Your task to perform on an android device: Add "logitech g933" to the cart on bestbuy, then select checkout. Image 0: 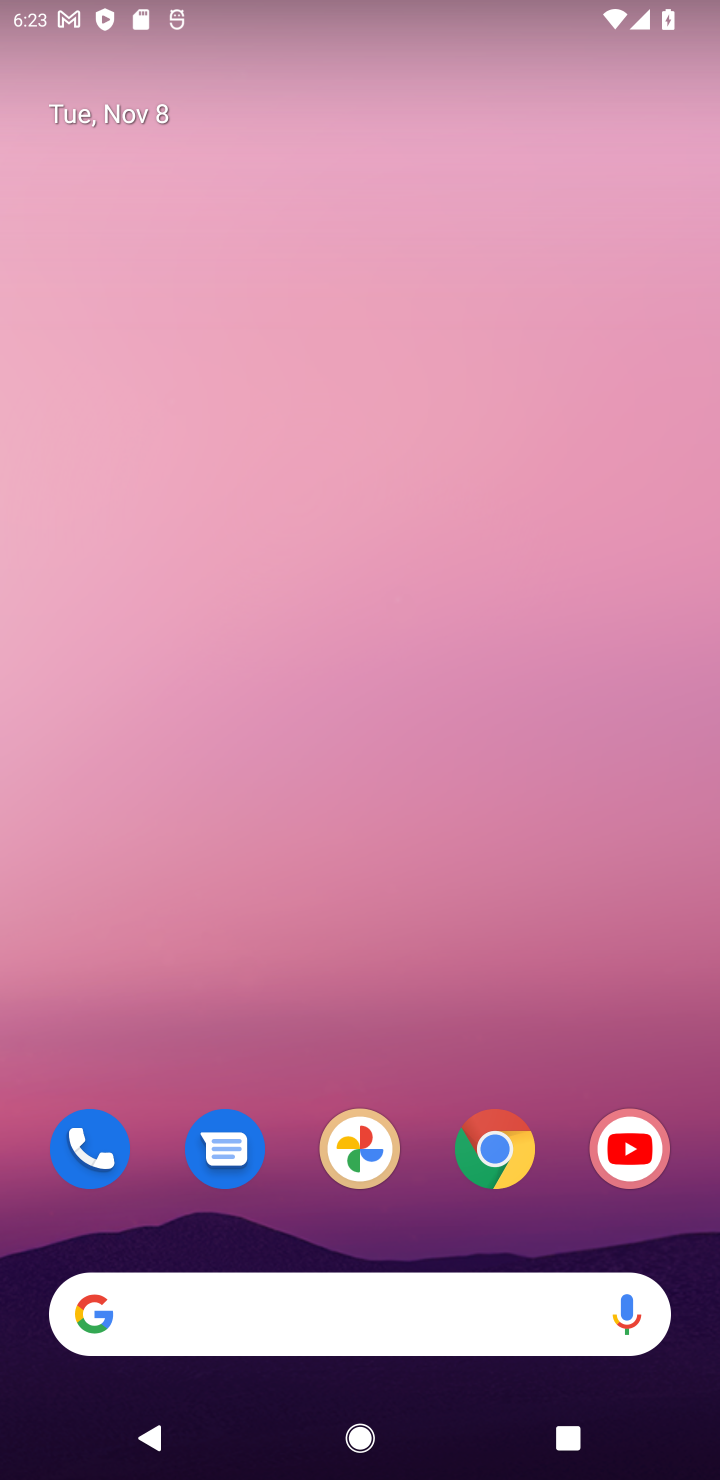
Step 0: click (497, 1163)
Your task to perform on an android device: Add "logitech g933" to the cart on bestbuy, then select checkout. Image 1: 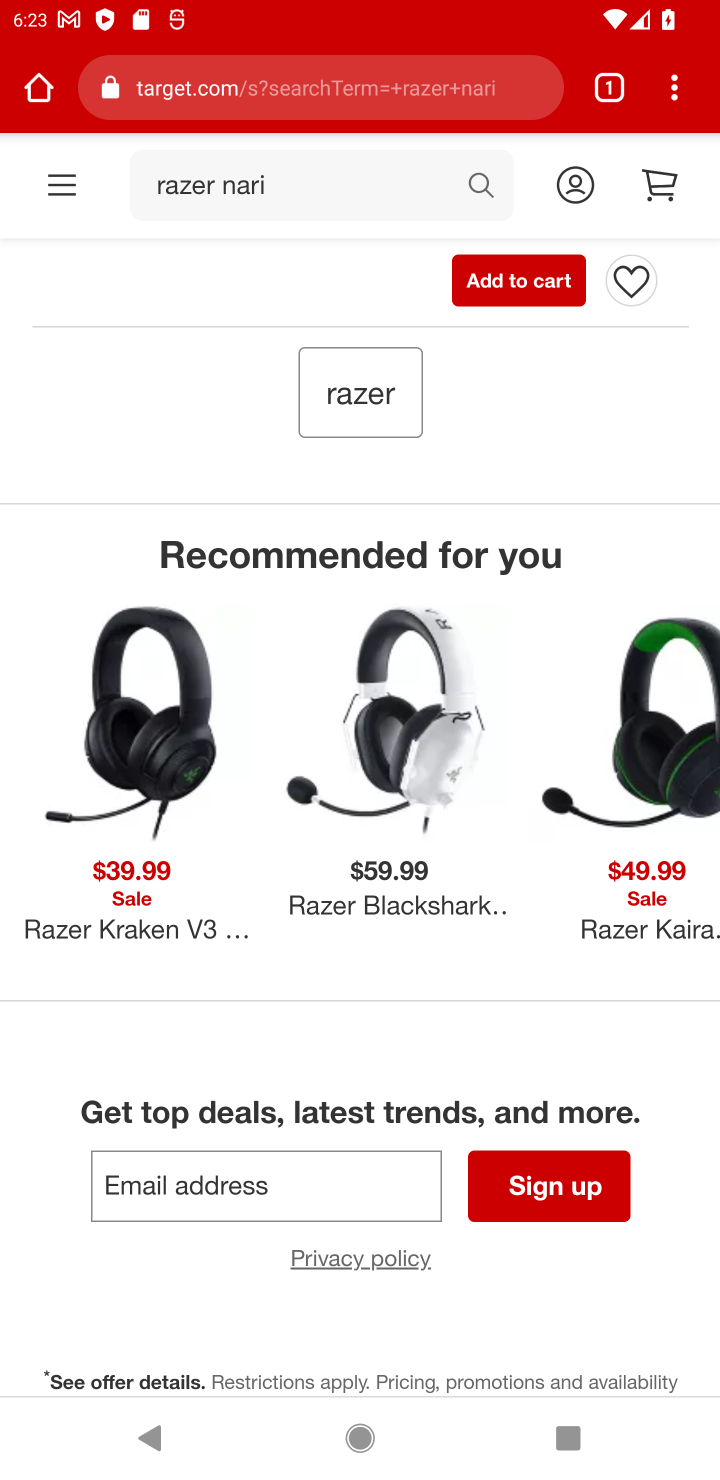
Step 1: click (460, 81)
Your task to perform on an android device: Add "logitech g933" to the cart on bestbuy, then select checkout. Image 2: 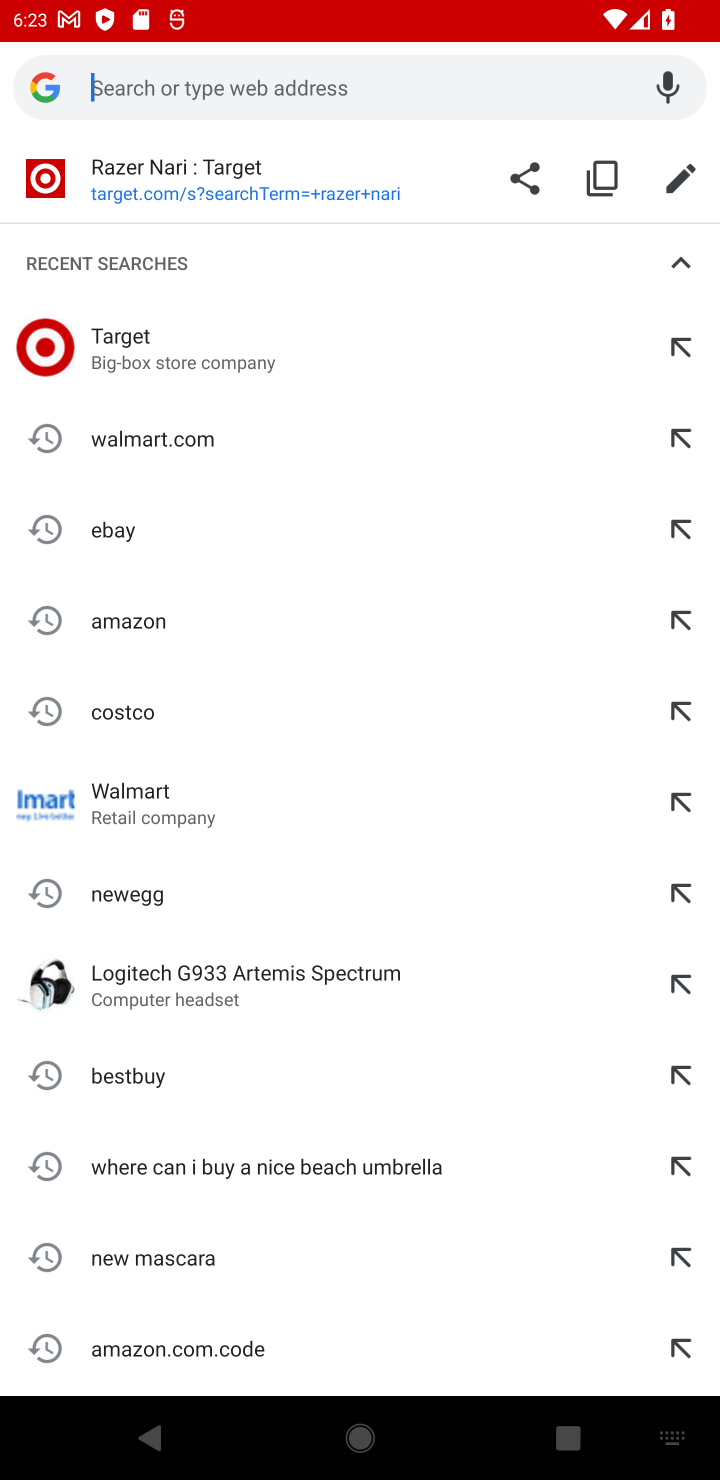
Step 2: press enter
Your task to perform on an android device: Add "logitech g933" to the cart on bestbuy, then select checkout. Image 3: 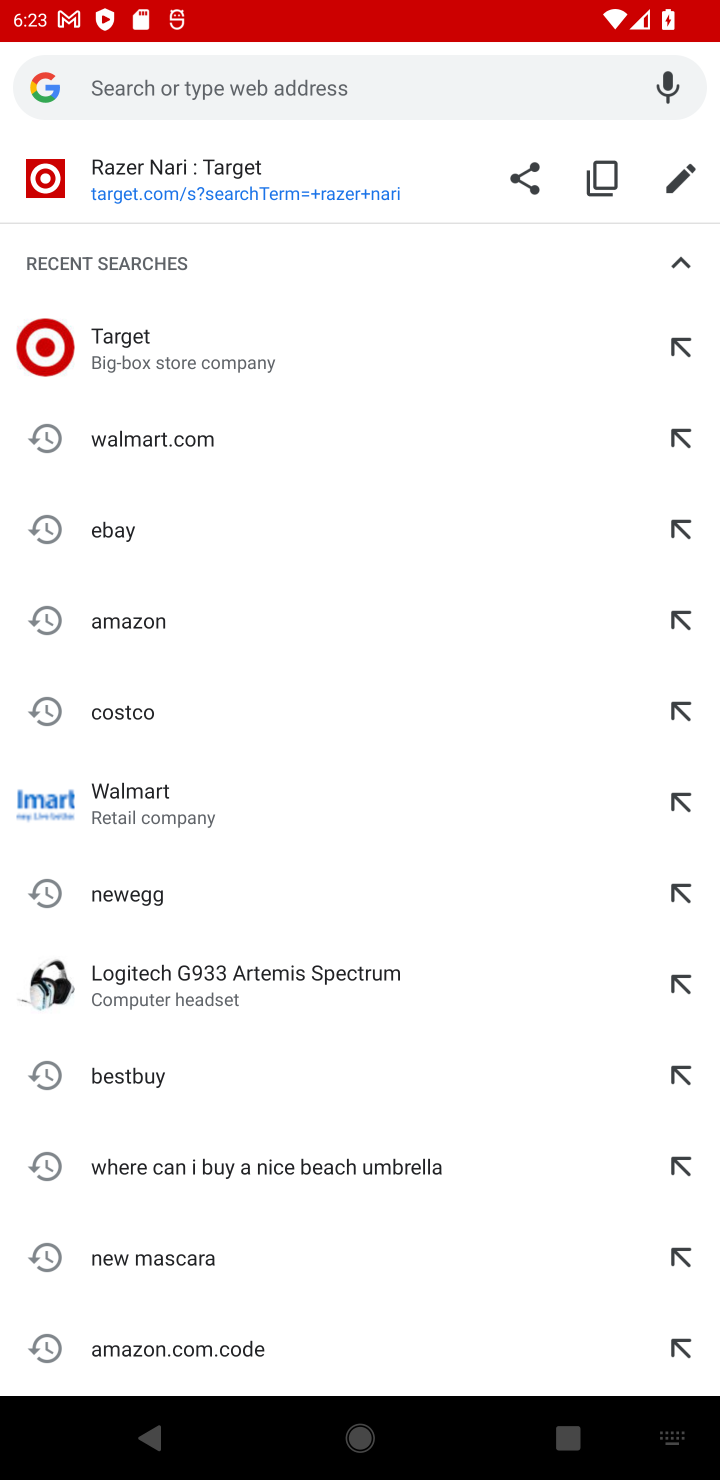
Step 3: type "bestbuy"
Your task to perform on an android device: Add "logitech g933" to the cart on bestbuy, then select checkout. Image 4: 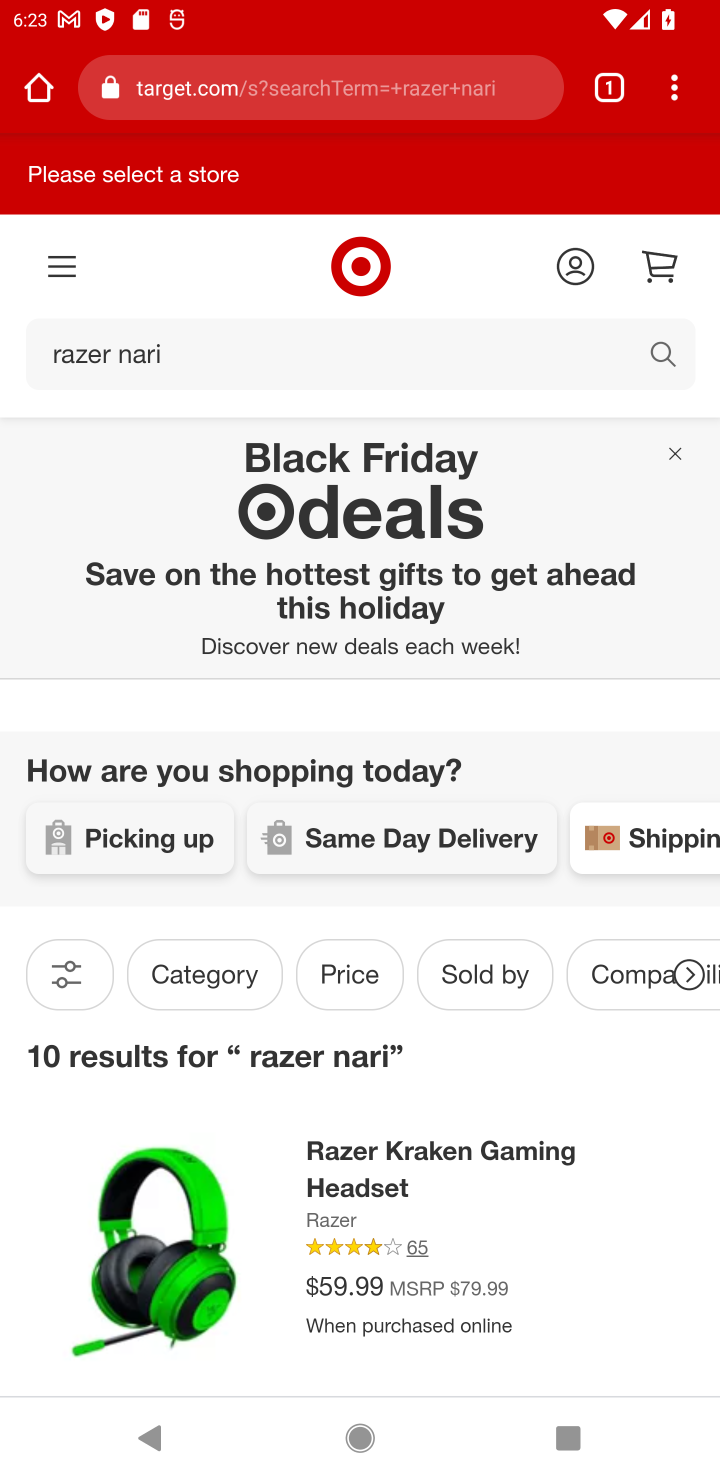
Step 4: click (406, 86)
Your task to perform on an android device: Add "logitech g933" to the cart on bestbuy, then select checkout. Image 5: 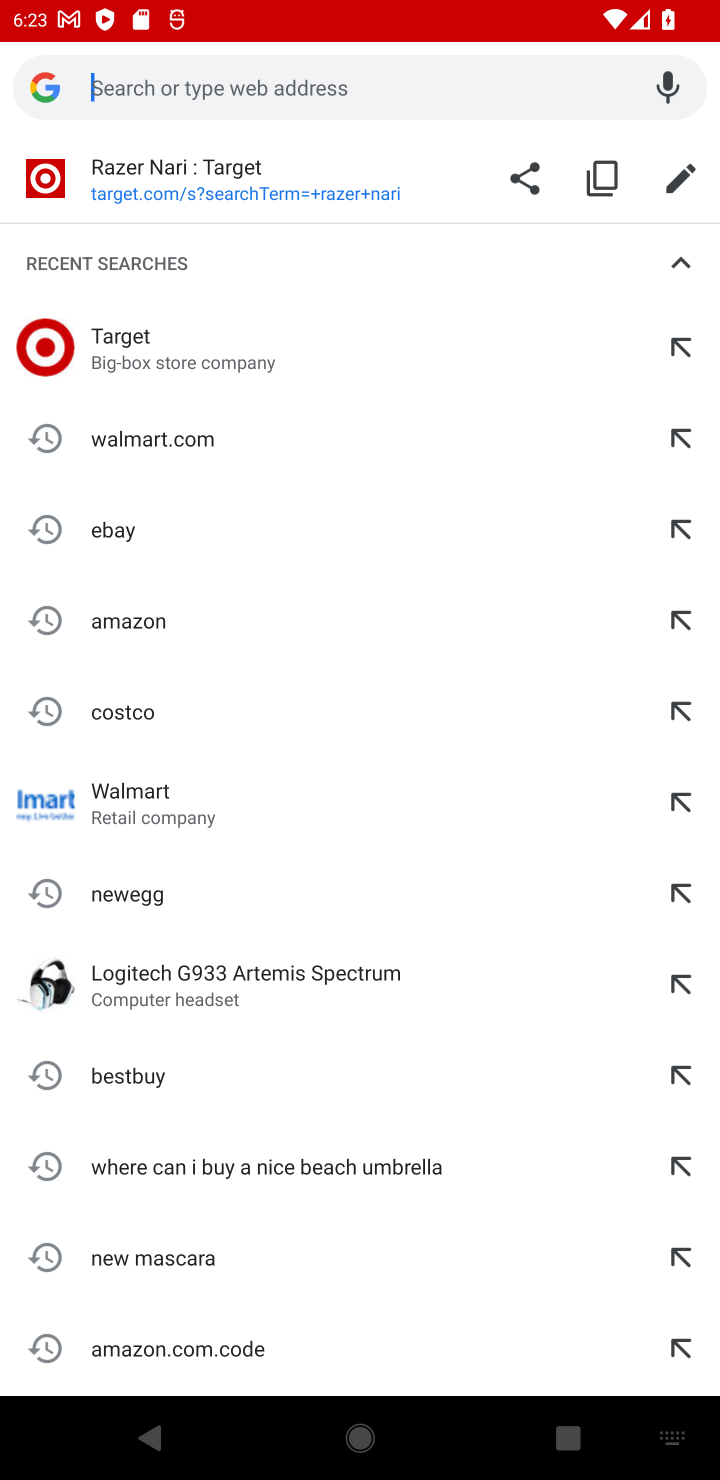
Step 5: press enter
Your task to perform on an android device: Add "logitech g933" to the cart on bestbuy, then select checkout. Image 6: 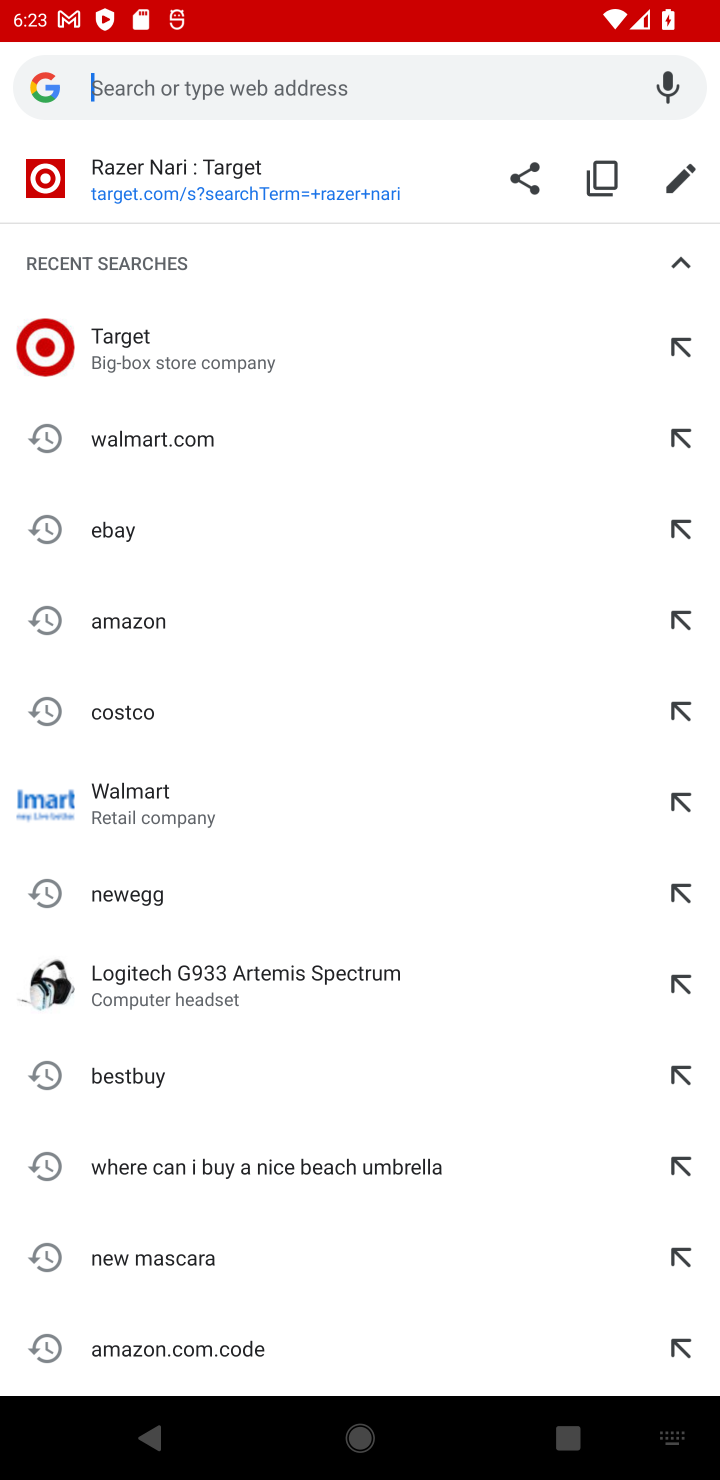
Step 6: type "bestbuy"
Your task to perform on an android device: Add "logitech g933" to the cart on bestbuy, then select checkout. Image 7: 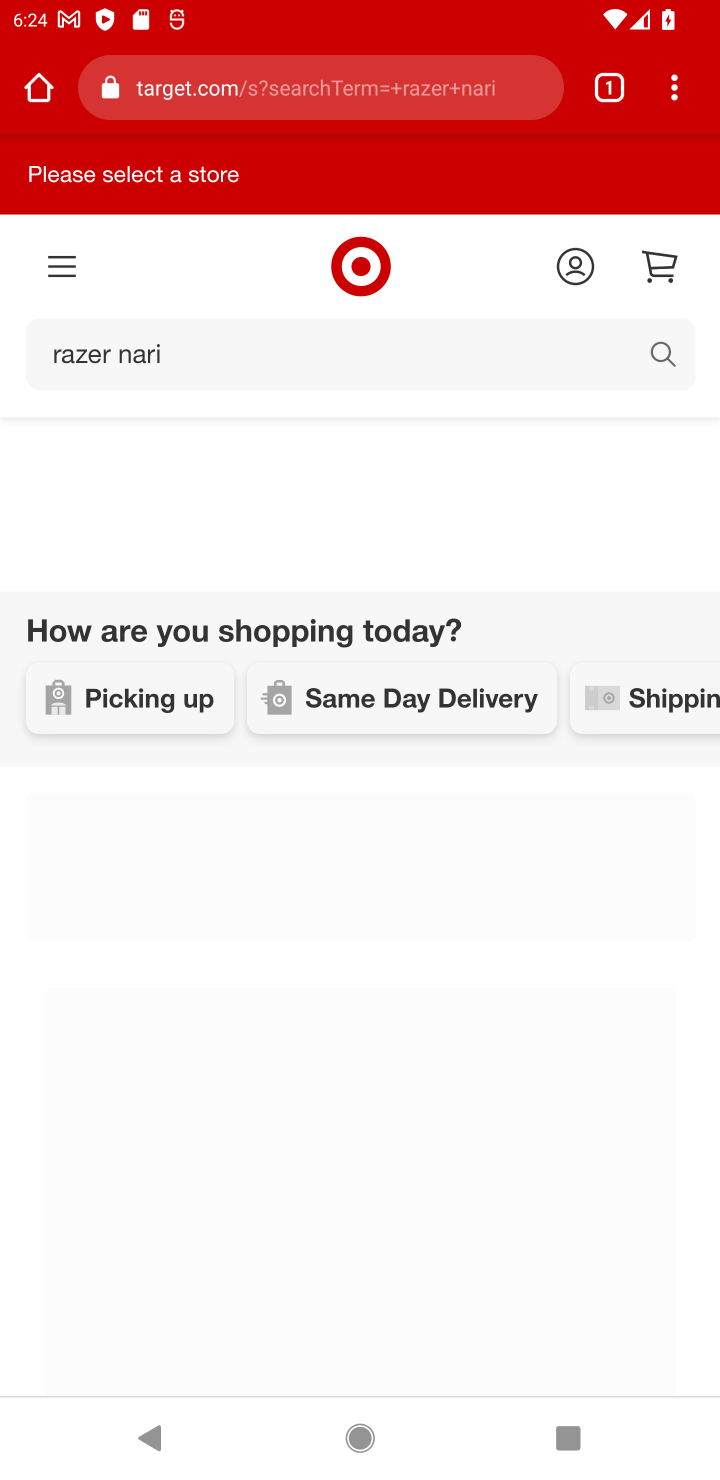
Step 7: click (42, 75)
Your task to perform on an android device: Add "logitech g933" to the cart on bestbuy, then select checkout. Image 8: 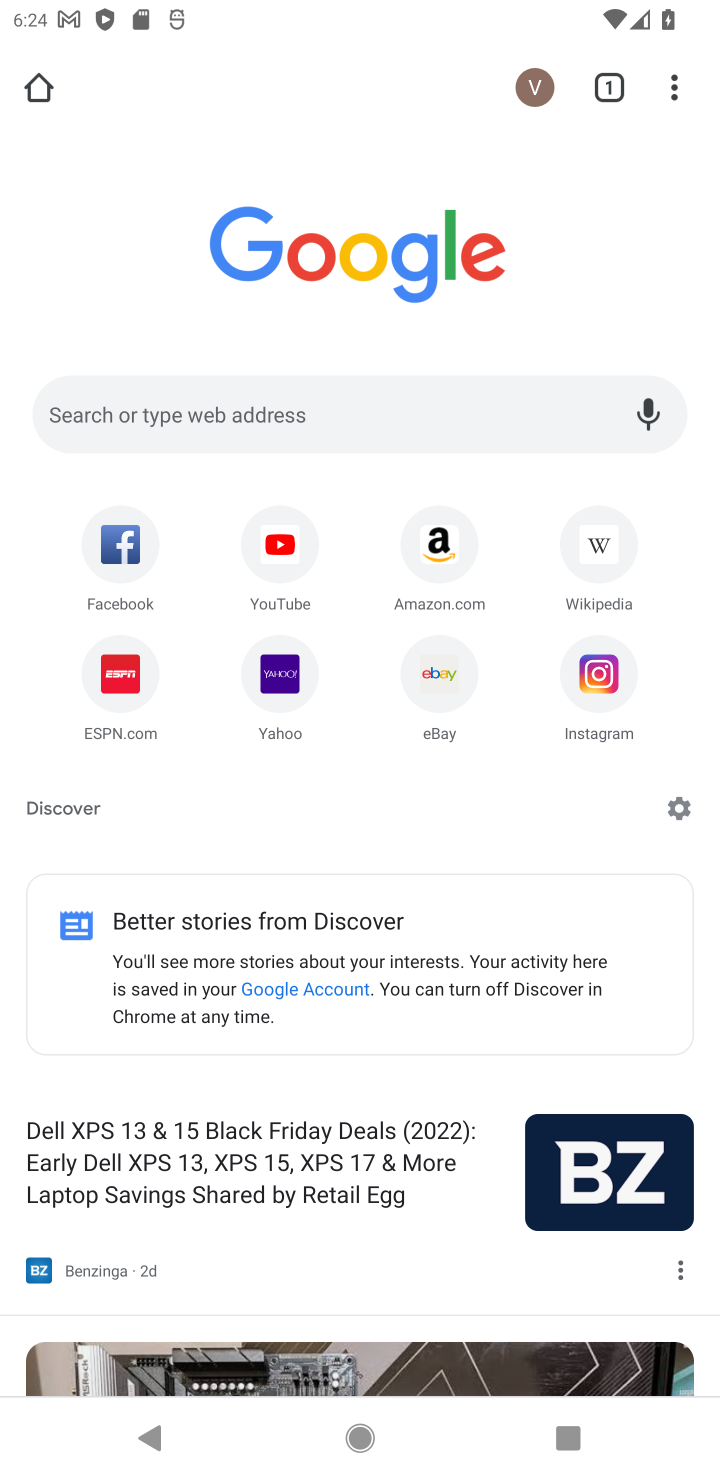
Step 8: click (333, 402)
Your task to perform on an android device: Add "logitech g933" to the cart on bestbuy, then select checkout. Image 9: 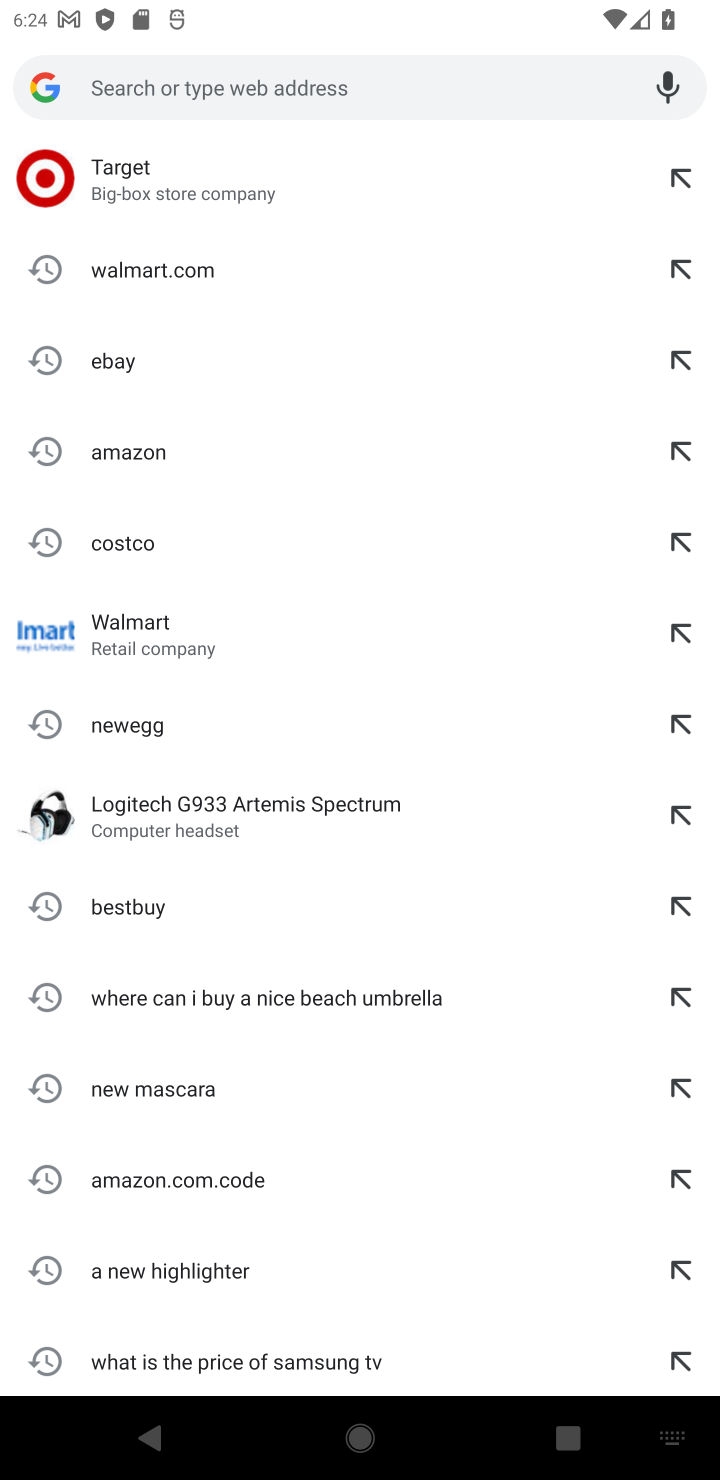
Step 9: click (121, 908)
Your task to perform on an android device: Add "logitech g933" to the cart on bestbuy, then select checkout. Image 10: 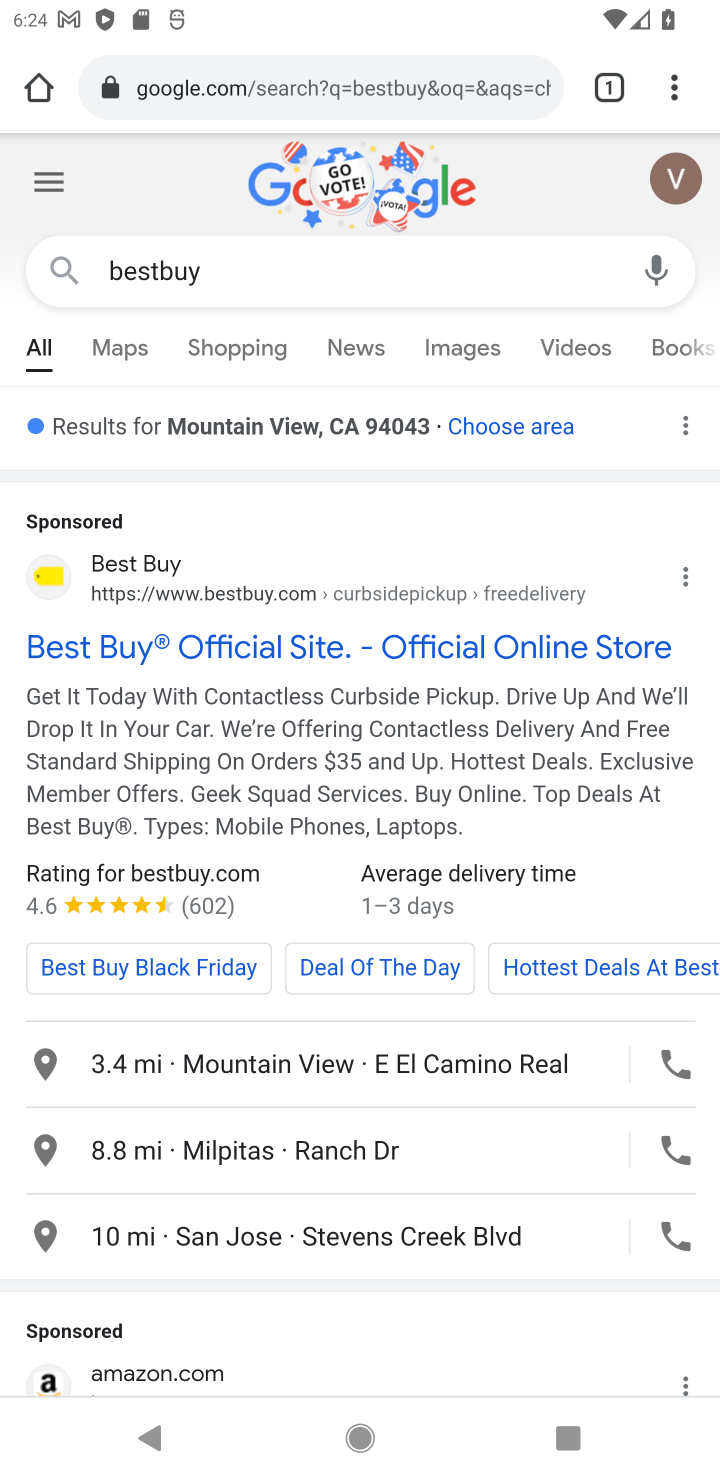
Step 10: click (160, 594)
Your task to perform on an android device: Add "logitech g933" to the cart on bestbuy, then select checkout. Image 11: 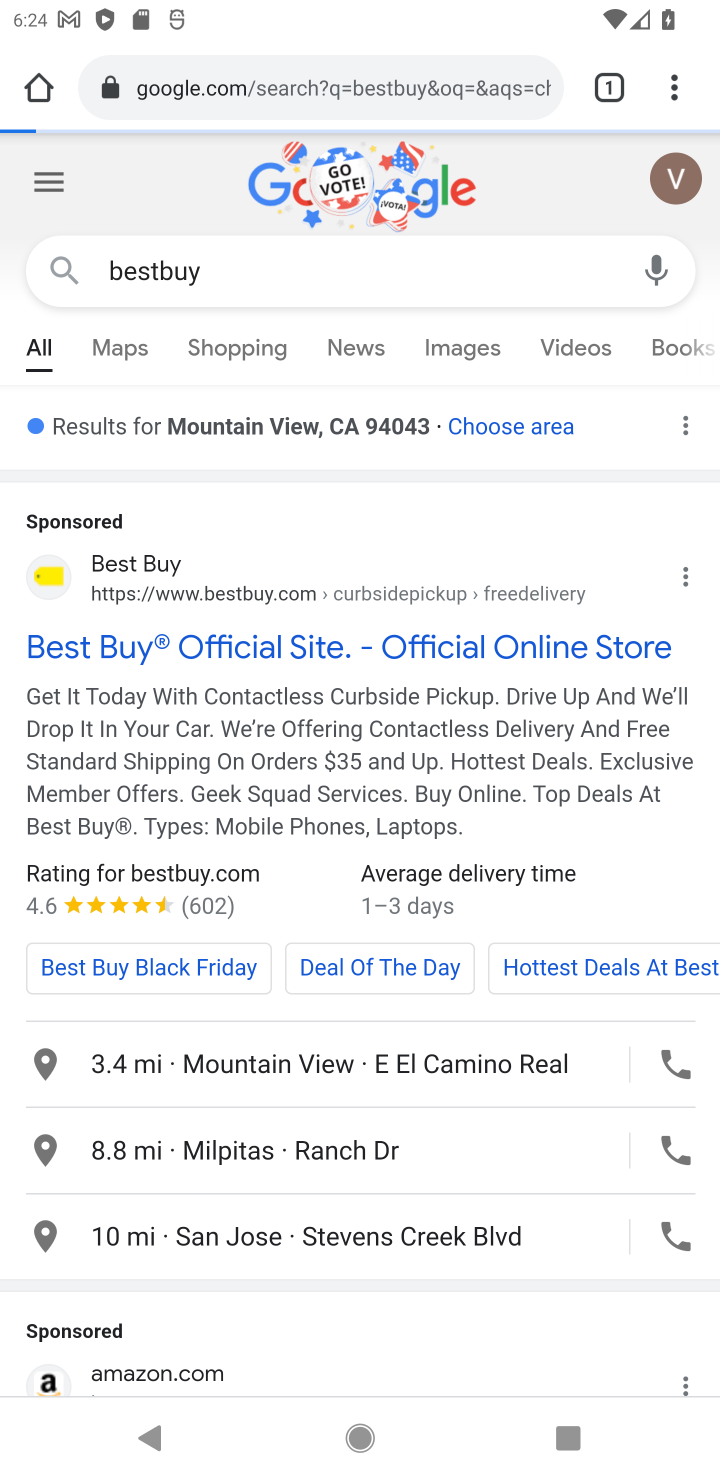
Step 11: click (160, 594)
Your task to perform on an android device: Add "logitech g933" to the cart on bestbuy, then select checkout. Image 12: 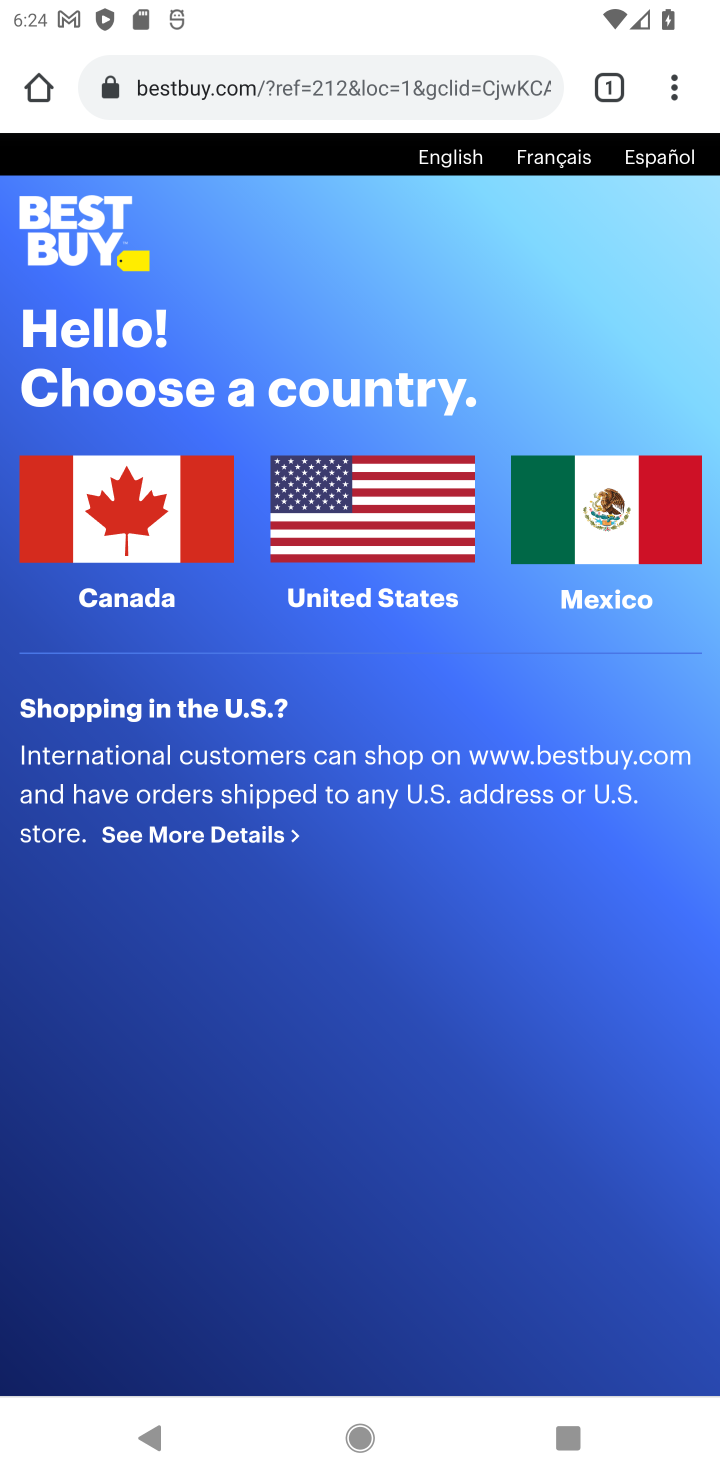
Step 12: click (462, 523)
Your task to perform on an android device: Add "logitech g933" to the cart on bestbuy, then select checkout. Image 13: 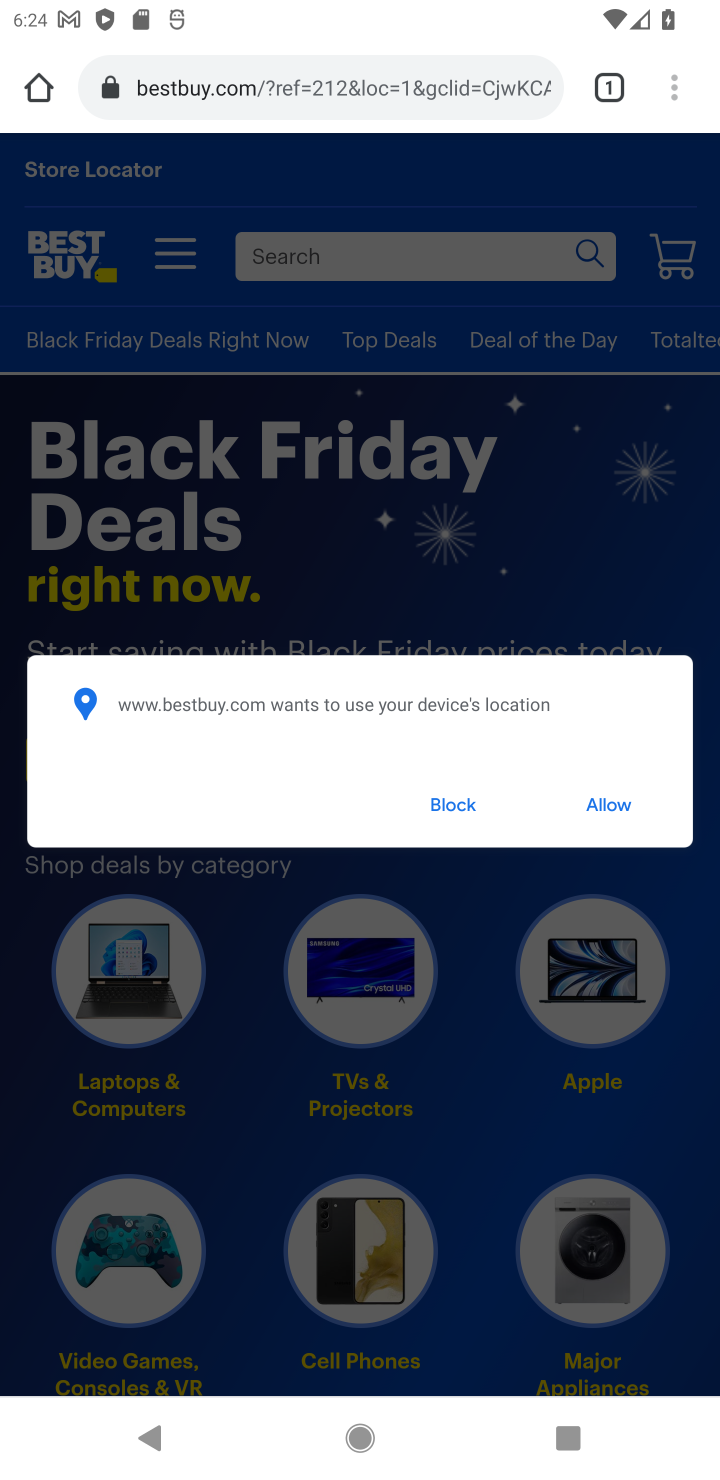
Step 13: click (456, 796)
Your task to perform on an android device: Add "logitech g933" to the cart on bestbuy, then select checkout. Image 14: 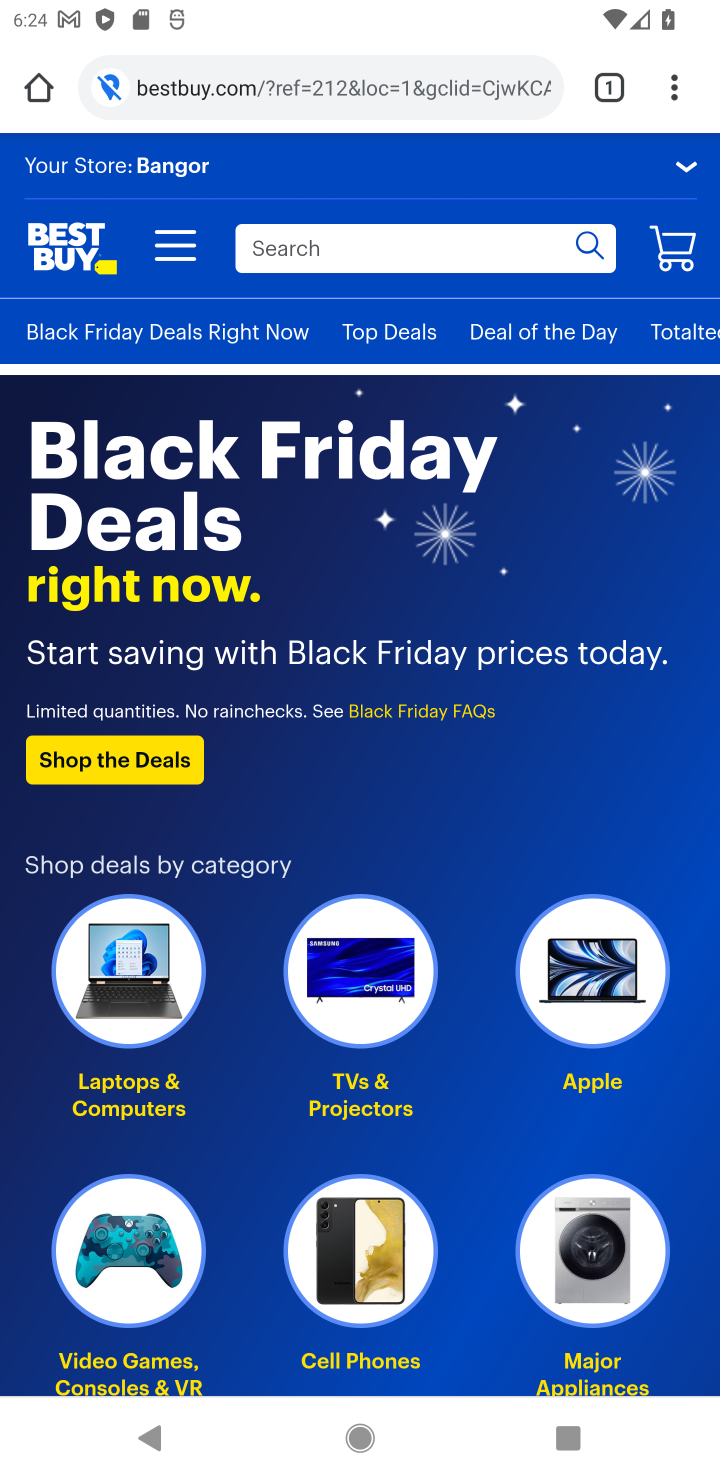
Step 14: click (488, 253)
Your task to perform on an android device: Add "logitech g933" to the cart on bestbuy, then select checkout. Image 15: 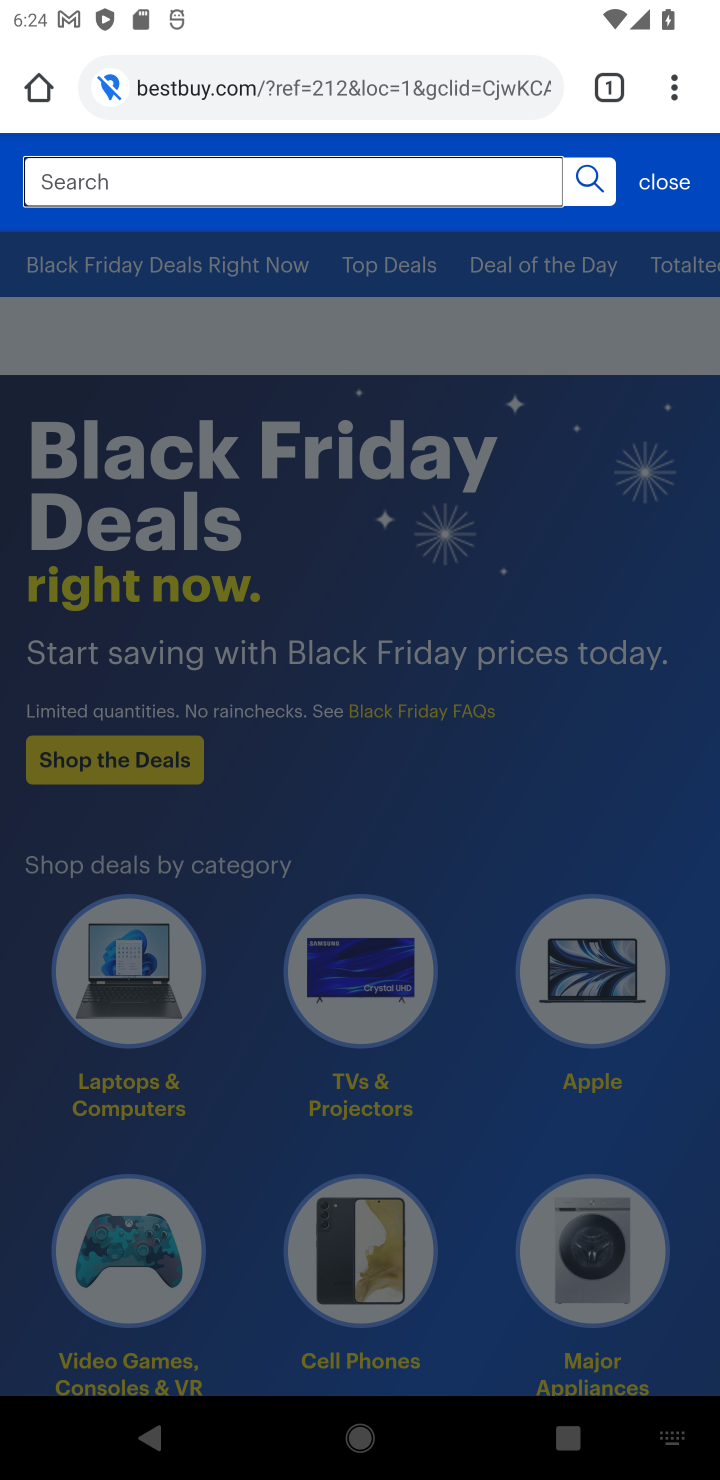
Step 15: type "logitech g933"
Your task to perform on an android device: Add "logitech g933" to the cart on bestbuy, then select checkout. Image 16: 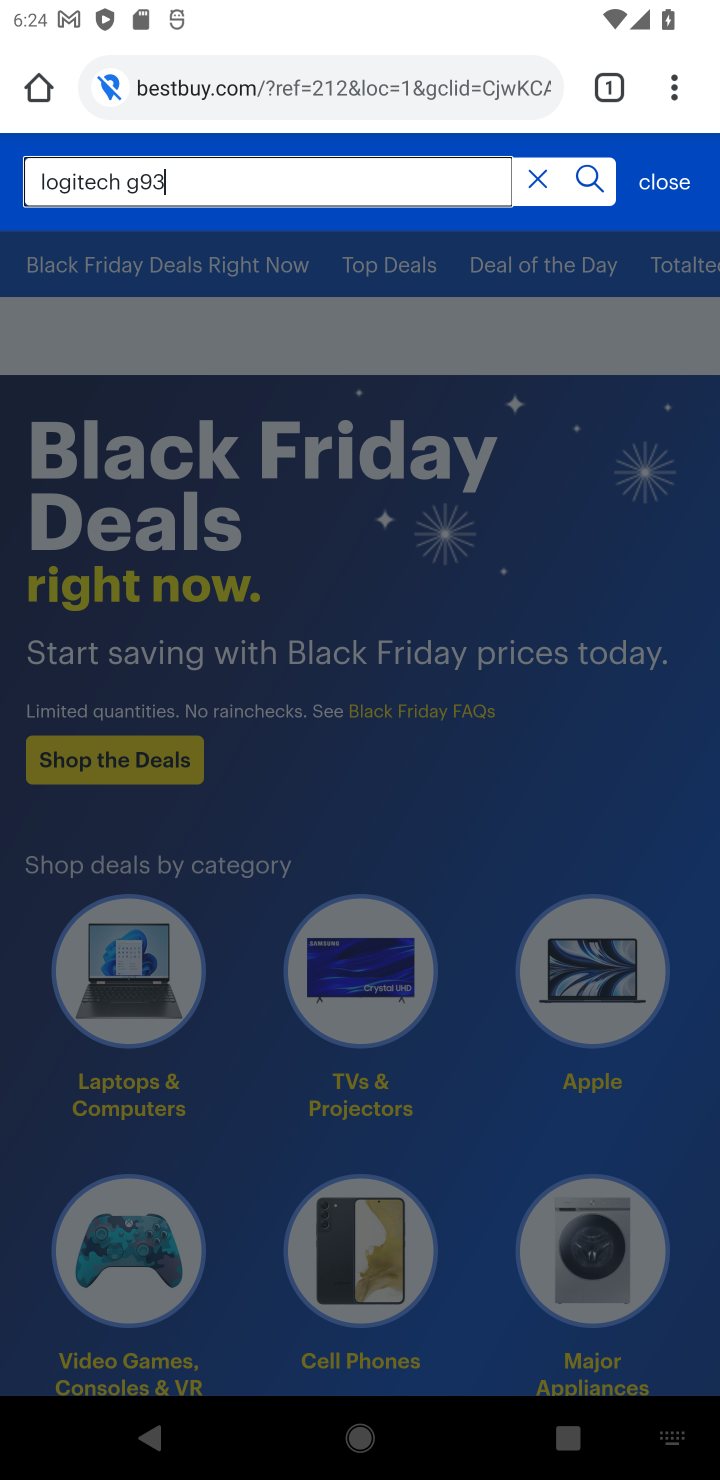
Step 16: press enter
Your task to perform on an android device: Add "logitech g933" to the cart on bestbuy, then select checkout. Image 17: 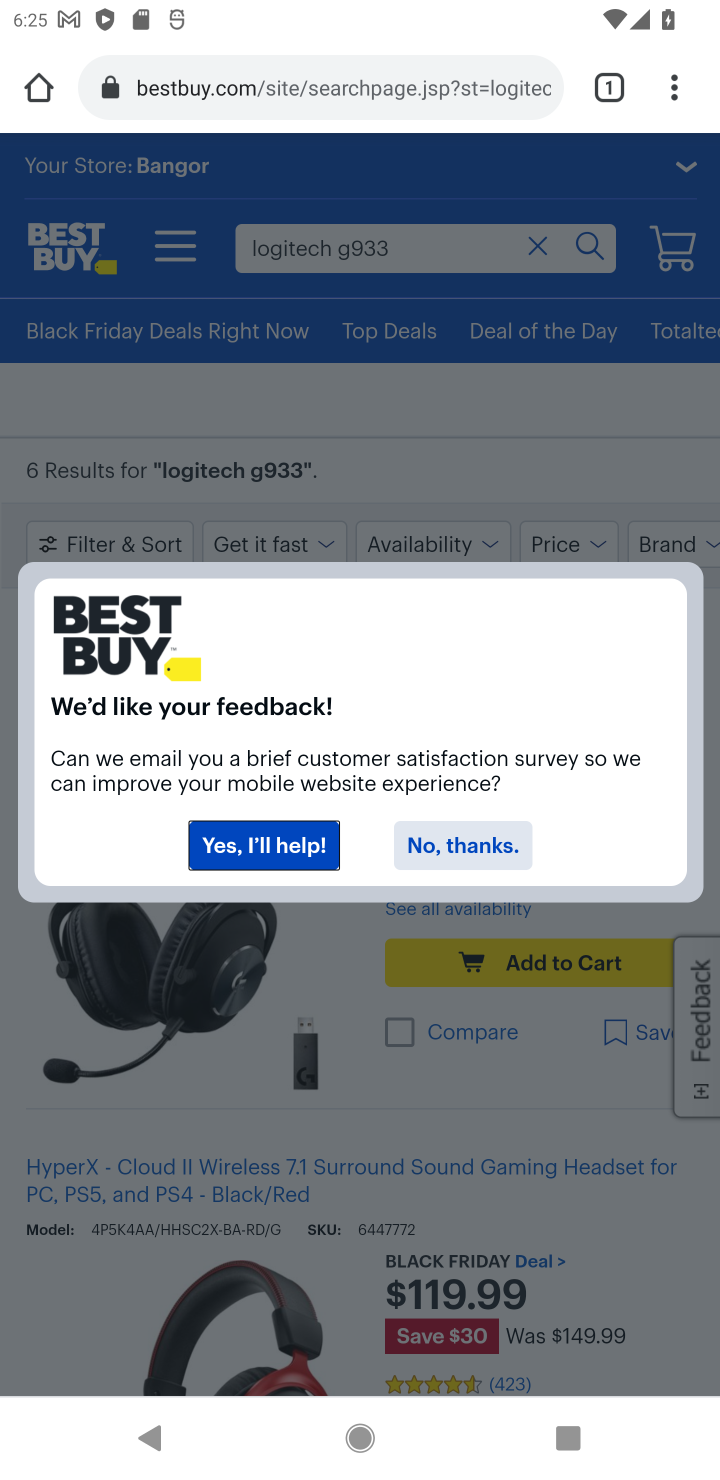
Step 17: click (470, 852)
Your task to perform on an android device: Add "logitech g933" to the cart on bestbuy, then select checkout. Image 18: 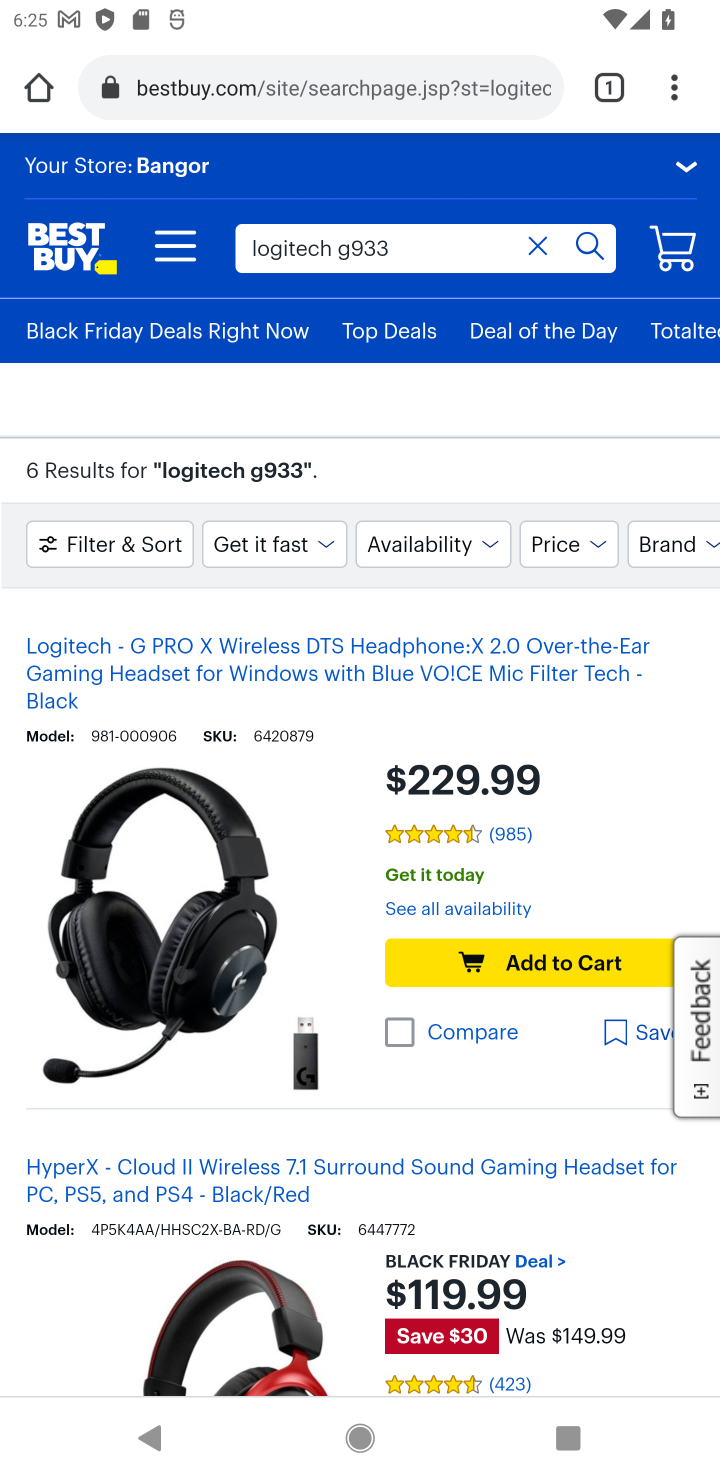
Step 18: drag from (483, 1083) to (487, 570)
Your task to perform on an android device: Add "logitech g933" to the cart on bestbuy, then select checkout. Image 19: 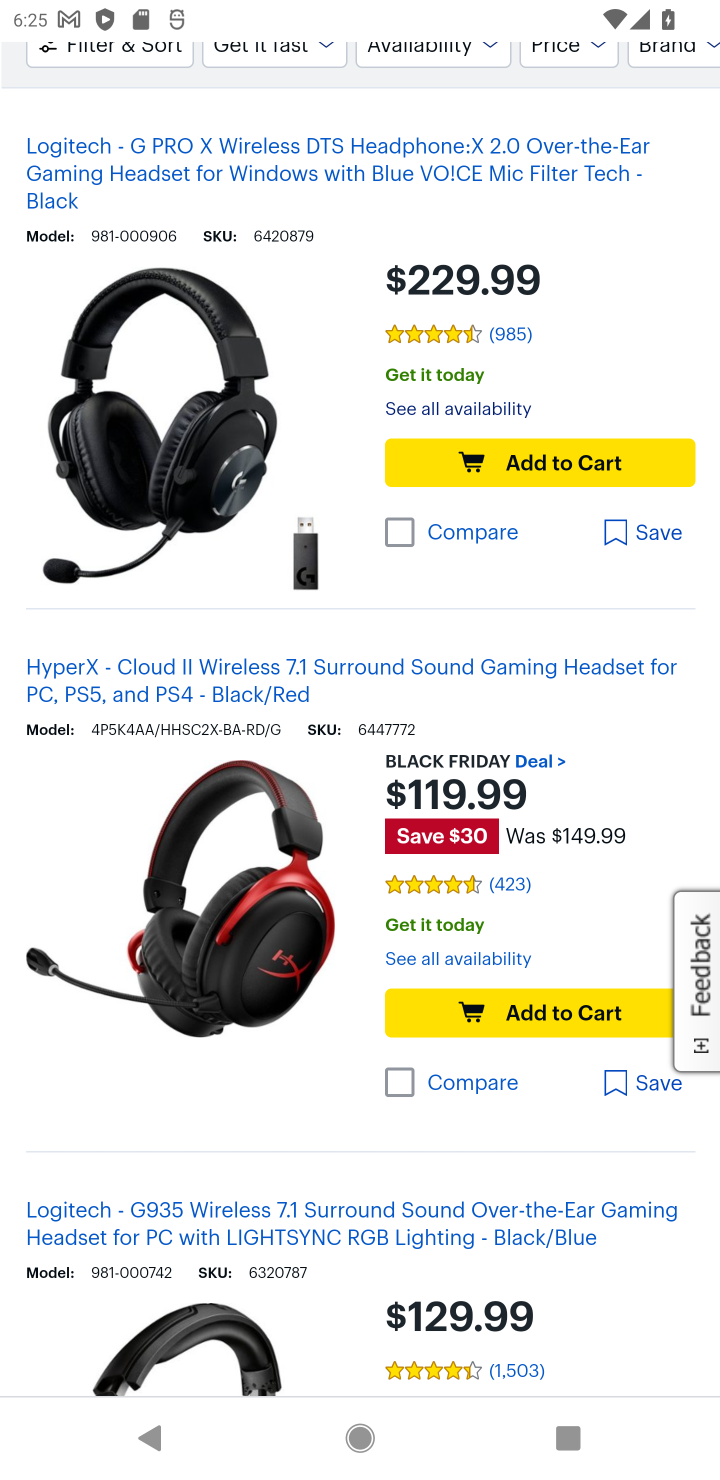
Step 19: drag from (498, 1139) to (584, 366)
Your task to perform on an android device: Add "logitech g933" to the cart on bestbuy, then select checkout. Image 20: 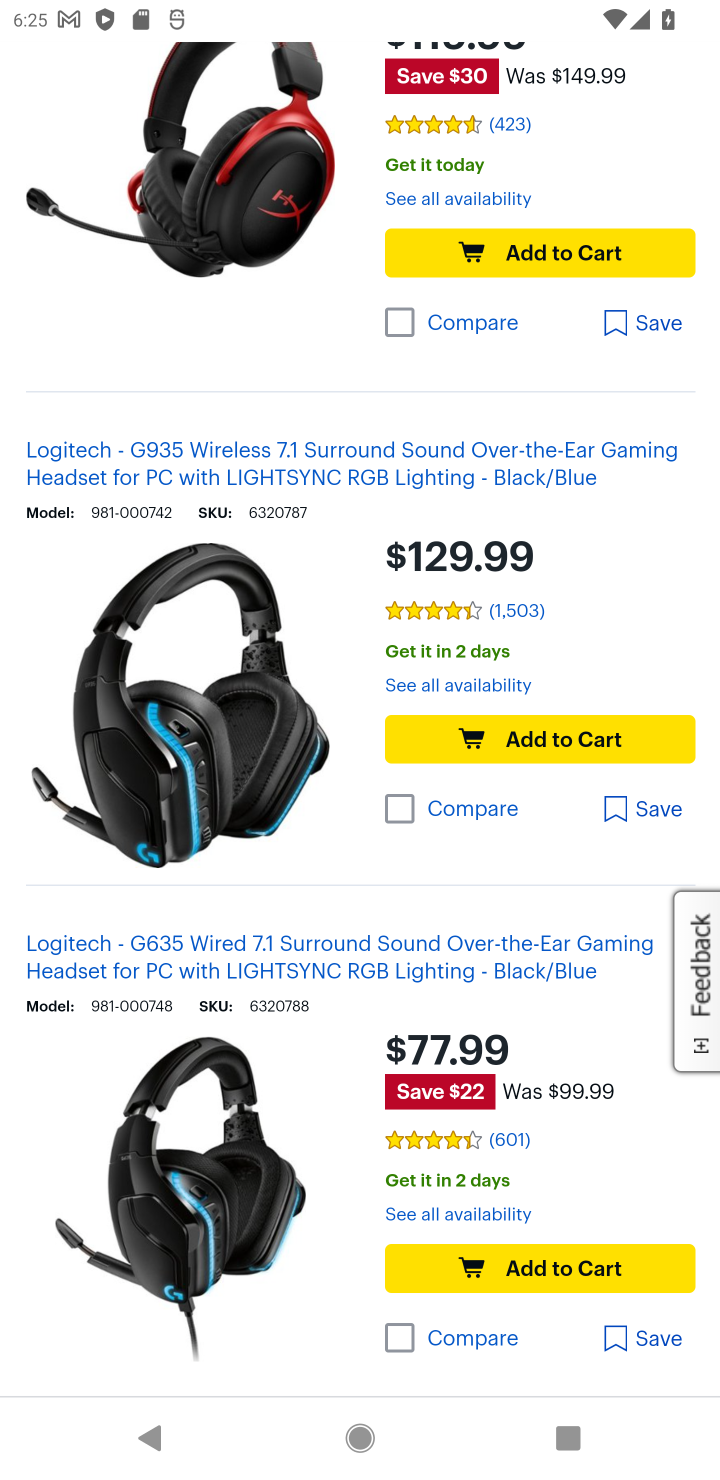
Step 20: drag from (267, 1082) to (239, 351)
Your task to perform on an android device: Add "logitech g933" to the cart on bestbuy, then select checkout. Image 21: 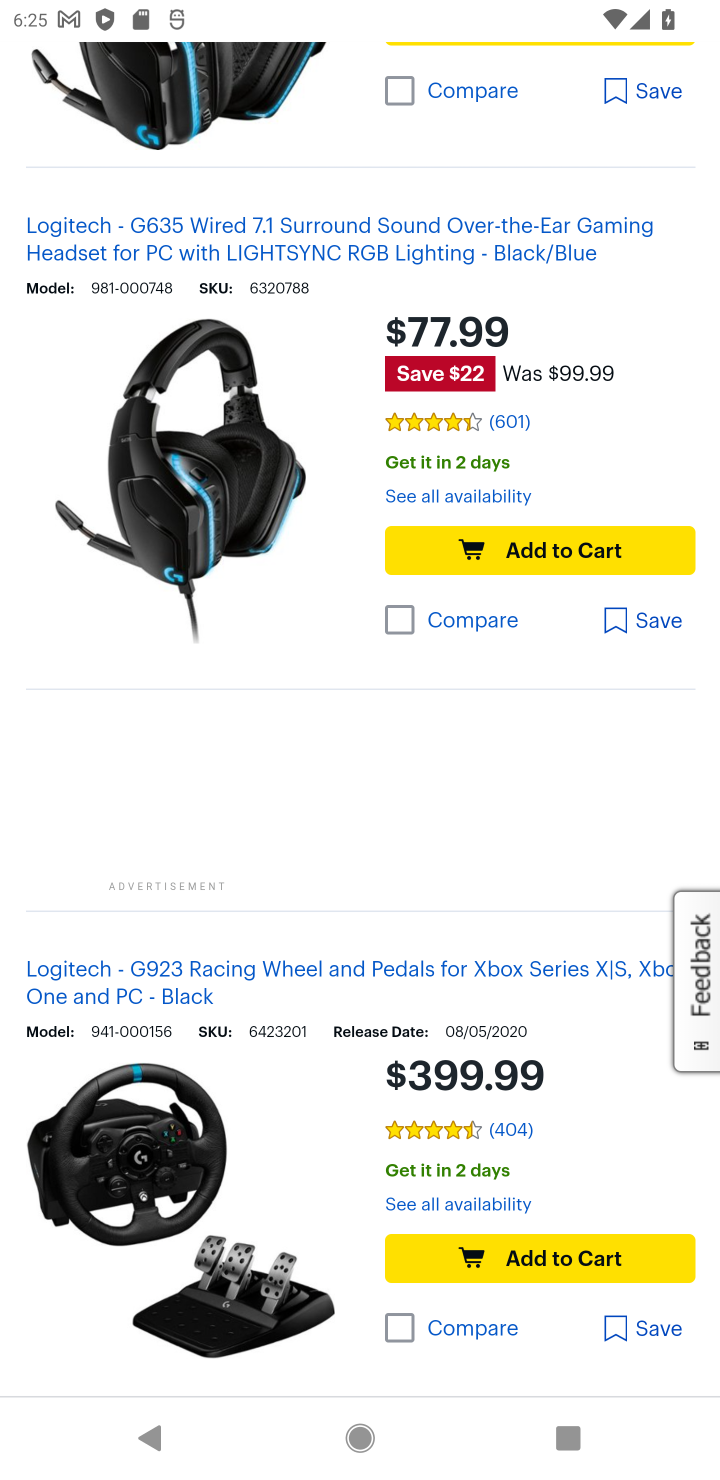
Step 21: drag from (282, 1181) to (301, 543)
Your task to perform on an android device: Add "logitech g933" to the cart on bestbuy, then select checkout. Image 22: 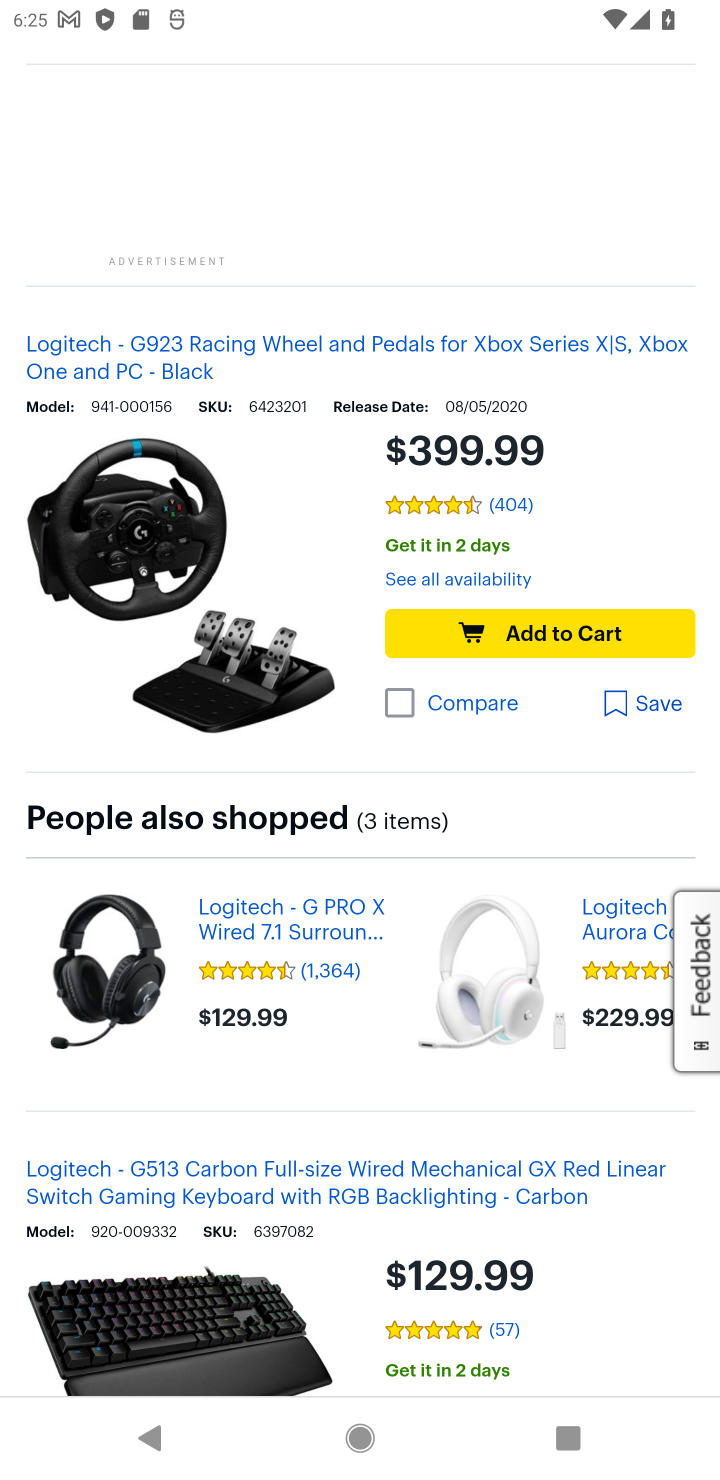
Step 22: drag from (313, 1282) to (344, 570)
Your task to perform on an android device: Add "logitech g933" to the cart on bestbuy, then select checkout. Image 23: 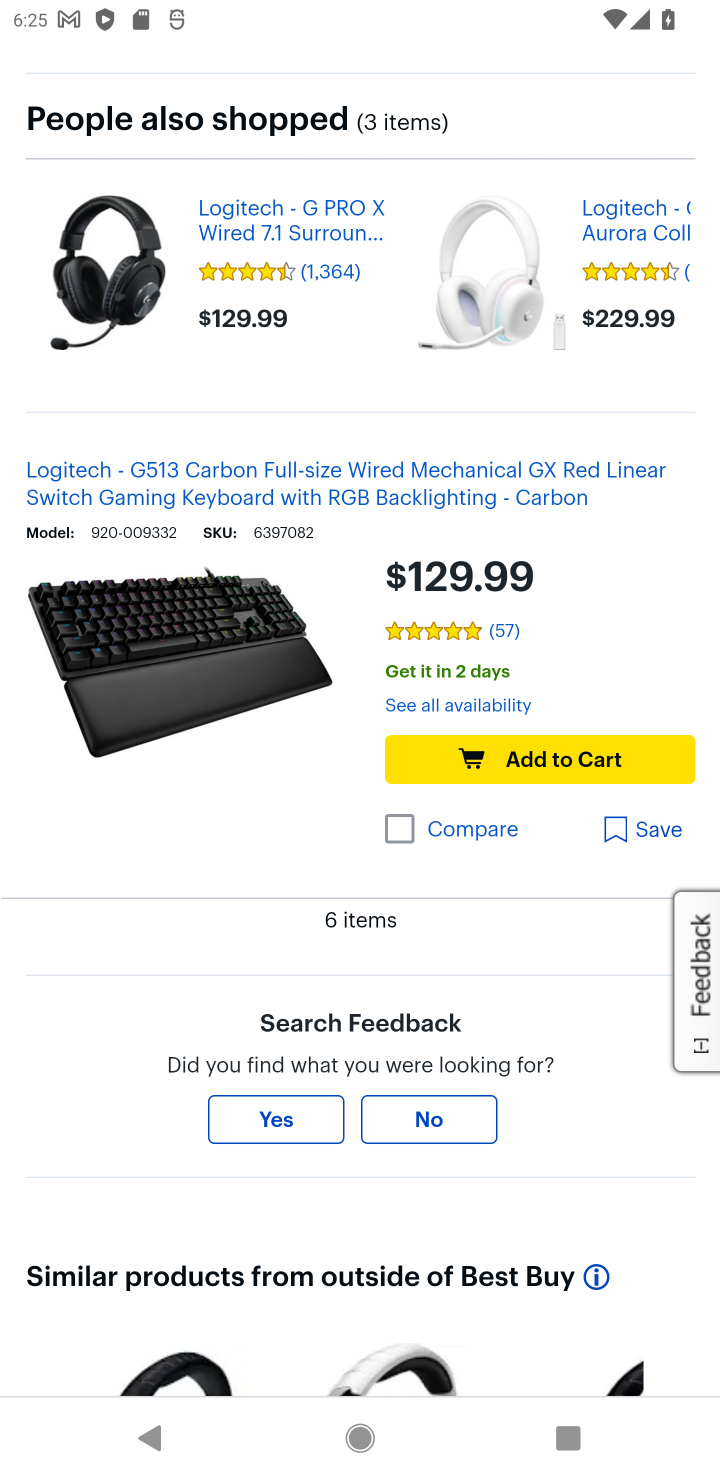
Step 23: drag from (464, 972) to (577, 332)
Your task to perform on an android device: Add "logitech g933" to the cart on bestbuy, then select checkout. Image 24: 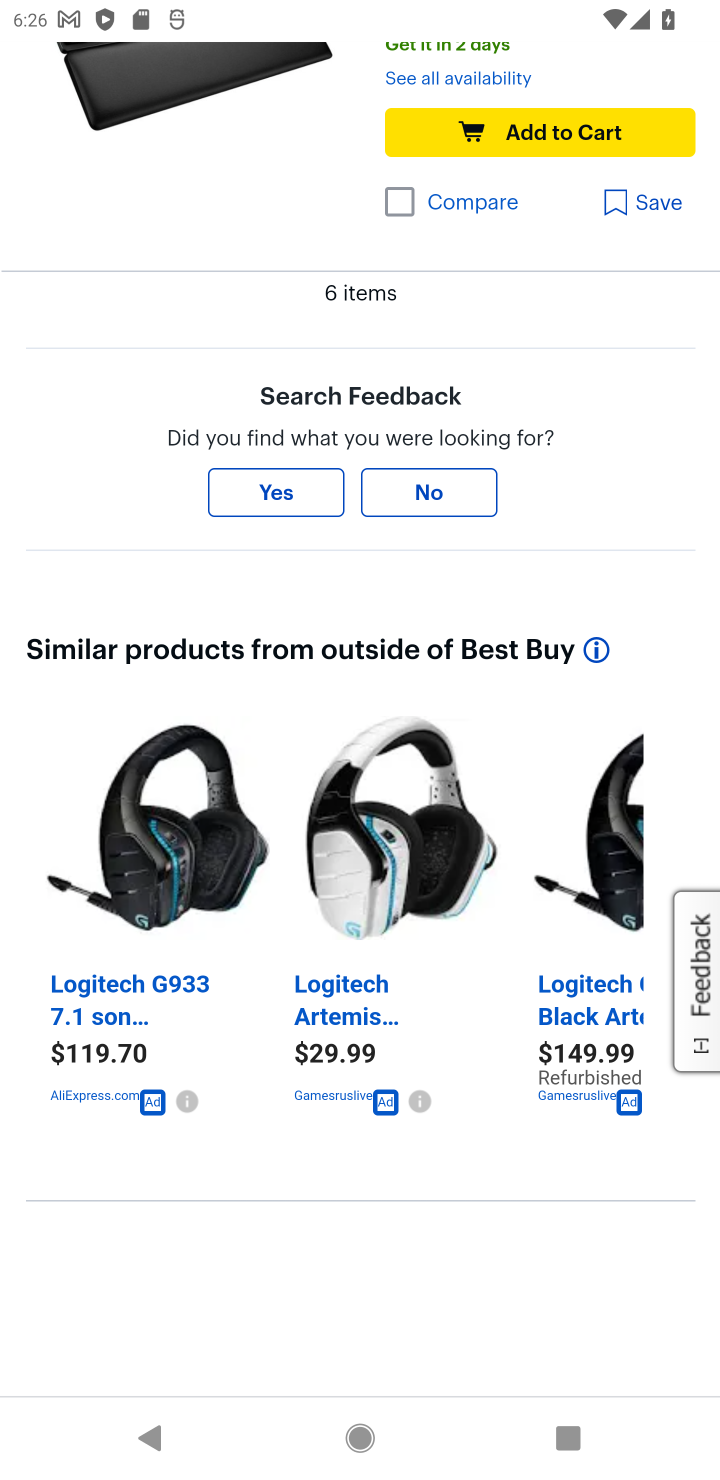
Step 24: drag from (261, 1128) to (242, 993)
Your task to perform on an android device: Add "logitech g933" to the cart on bestbuy, then select checkout. Image 25: 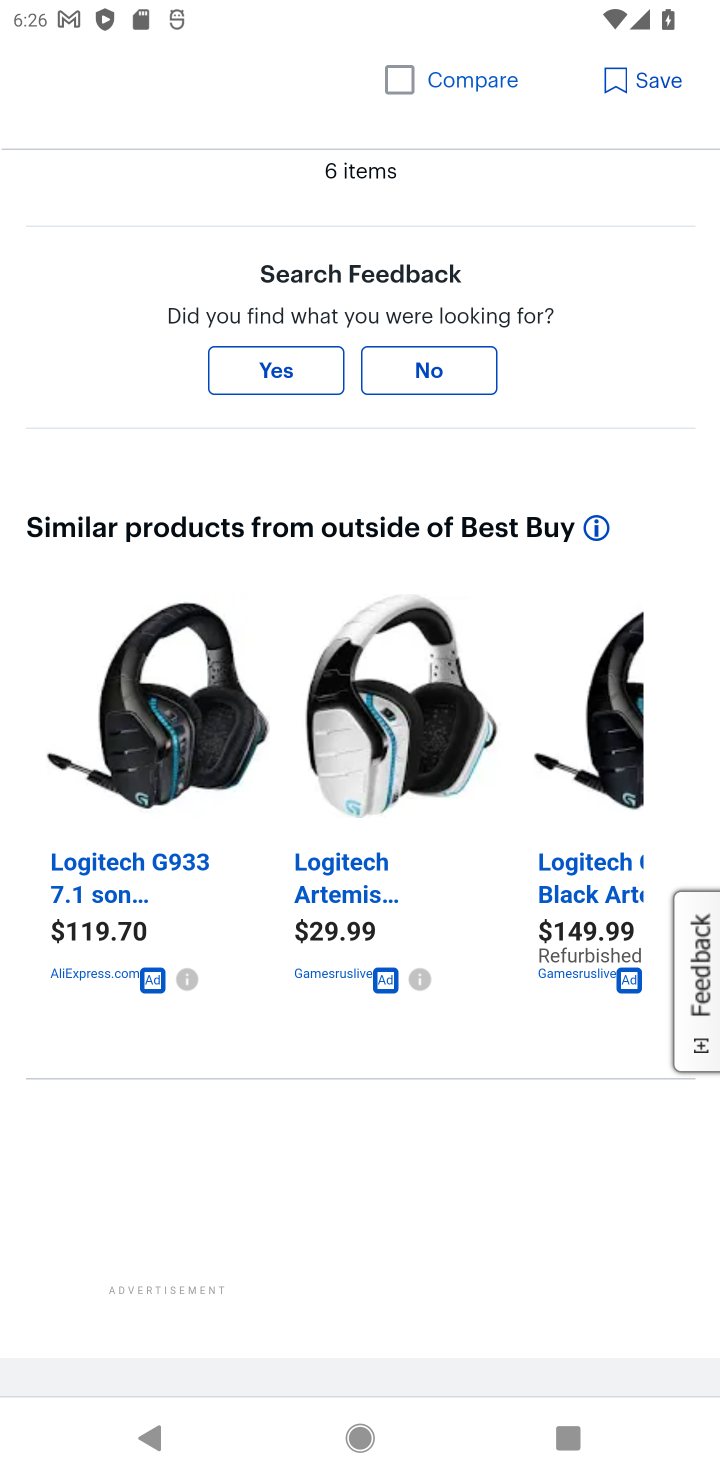
Step 25: click (144, 725)
Your task to perform on an android device: Add "logitech g933" to the cart on bestbuy, then select checkout. Image 26: 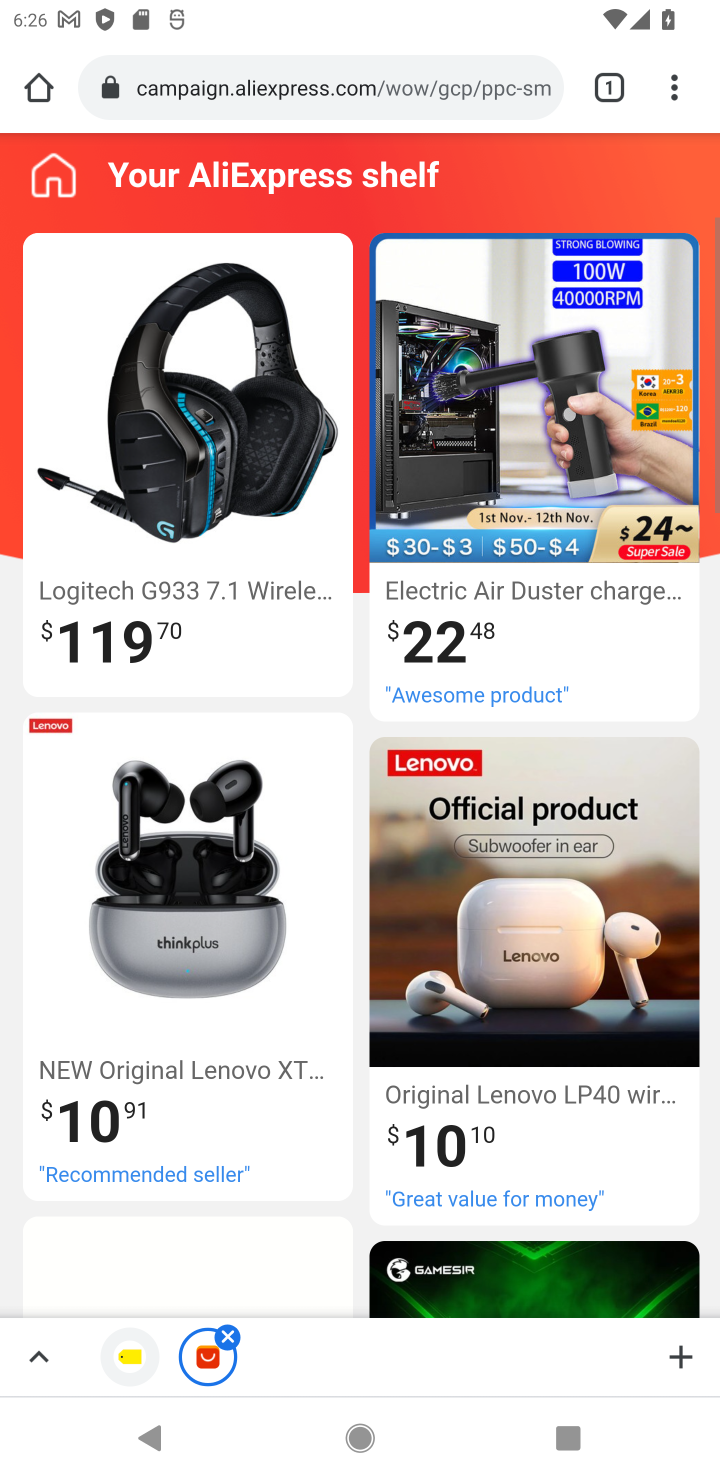
Step 26: task complete